Your task to perform on an android device: manage bookmarks in the chrome app Image 0: 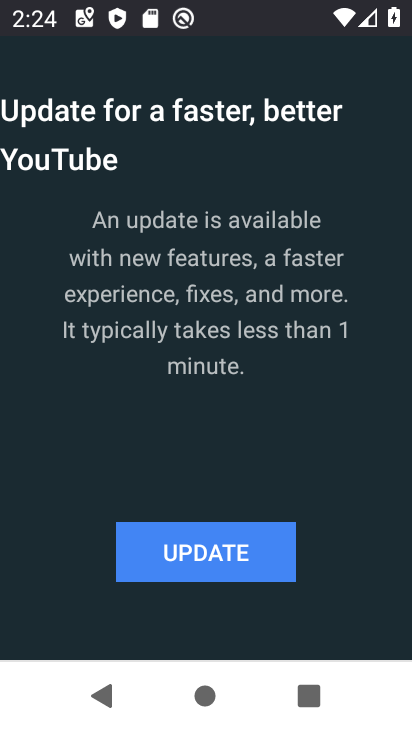
Step 0: press home button
Your task to perform on an android device: manage bookmarks in the chrome app Image 1: 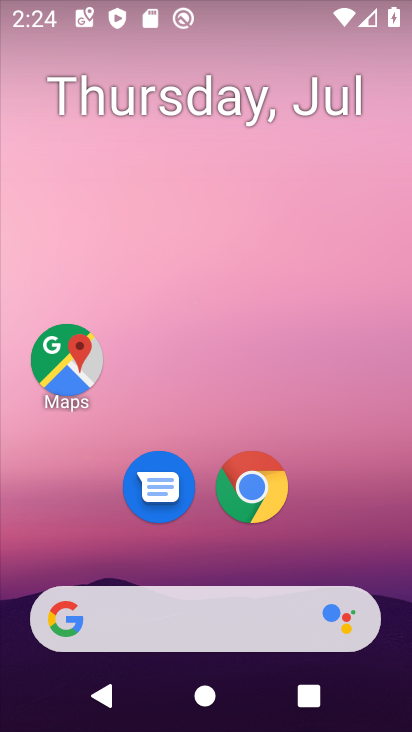
Step 1: drag from (354, 539) to (365, 204)
Your task to perform on an android device: manage bookmarks in the chrome app Image 2: 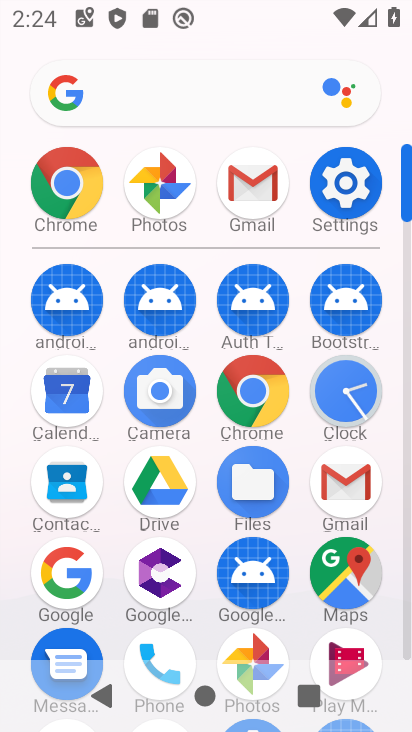
Step 2: click (267, 407)
Your task to perform on an android device: manage bookmarks in the chrome app Image 3: 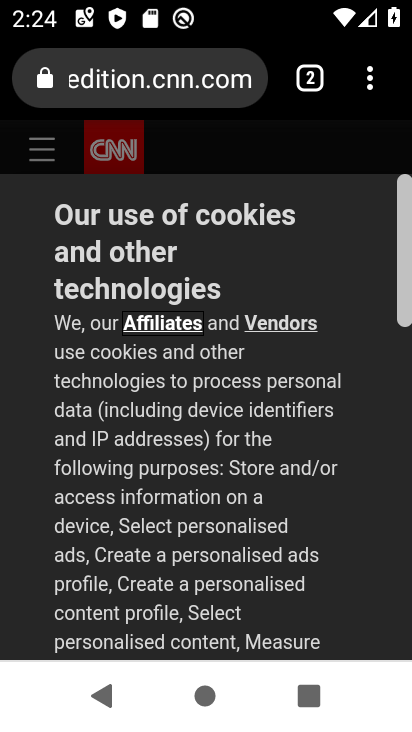
Step 3: click (370, 90)
Your task to perform on an android device: manage bookmarks in the chrome app Image 4: 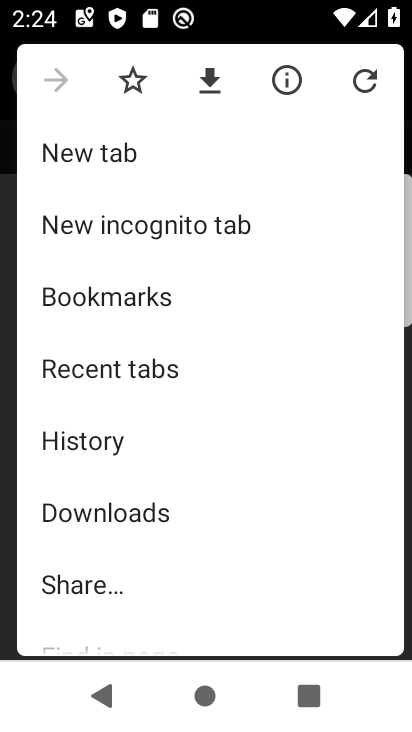
Step 4: click (196, 309)
Your task to perform on an android device: manage bookmarks in the chrome app Image 5: 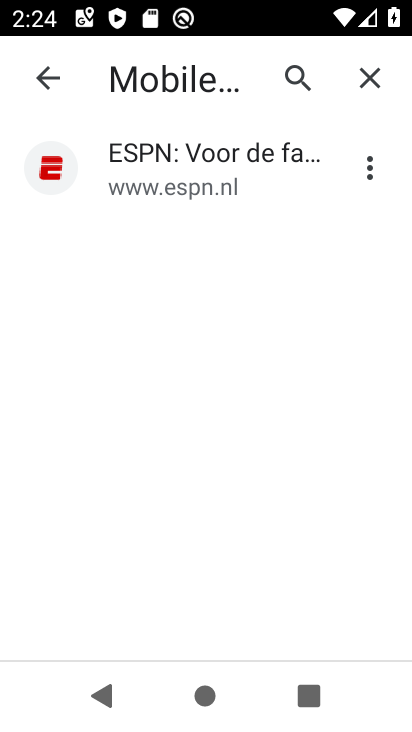
Step 5: click (370, 173)
Your task to perform on an android device: manage bookmarks in the chrome app Image 6: 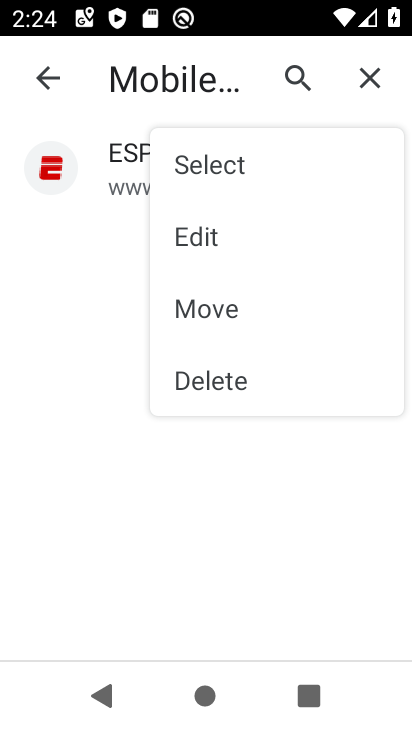
Step 6: click (234, 241)
Your task to perform on an android device: manage bookmarks in the chrome app Image 7: 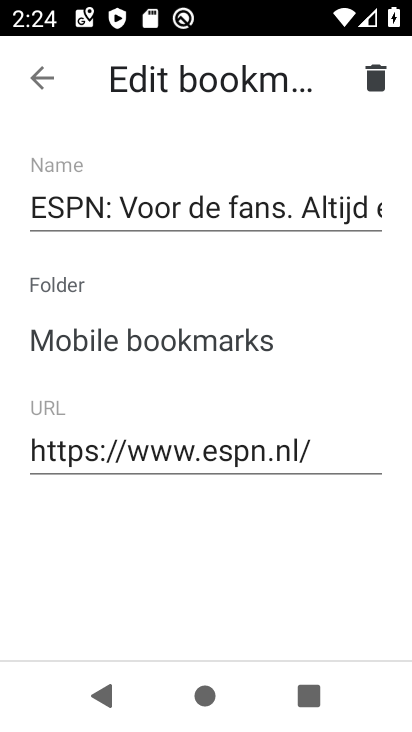
Step 7: click (182, 205)
Your task to perform on an android device: manage bookmarks in the chrome app Image 8: 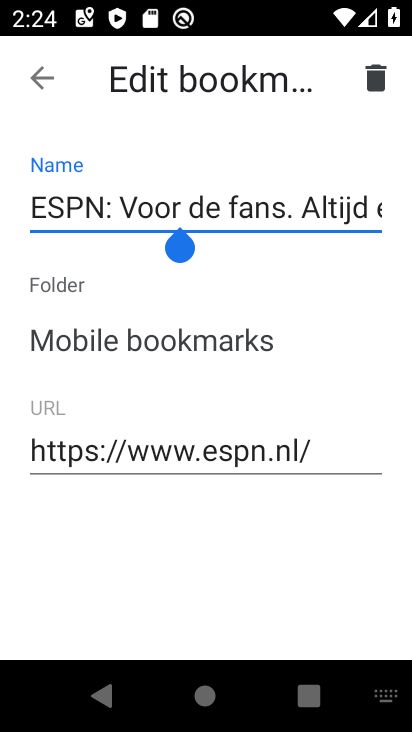
Step 8: type "r"
Your task to perform on an android device: manage bookmarks in the chrome app Image 9: 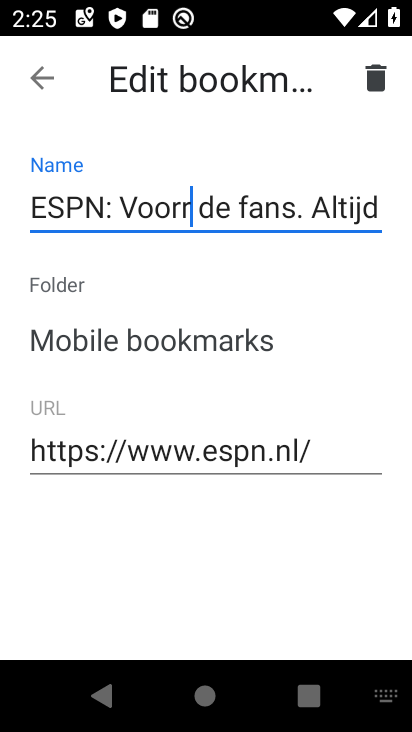
Step 9: click (33, 73)
Your task to perform on an android device: manage bookmarks in the chrome app Image 10: 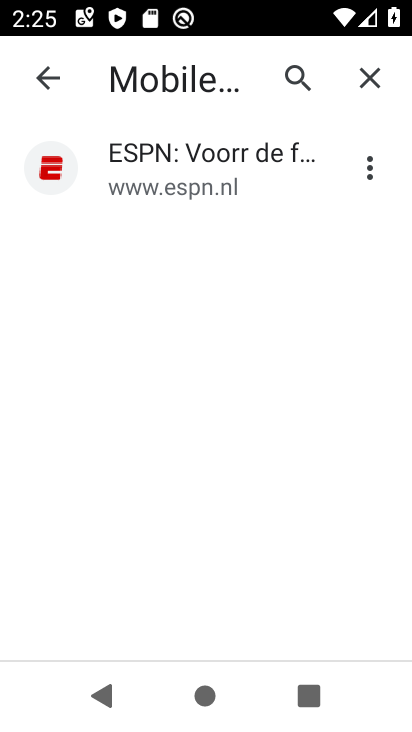
Step 10: task complete